Your task to perform on an android device: clear history in the chrome app Image 0: 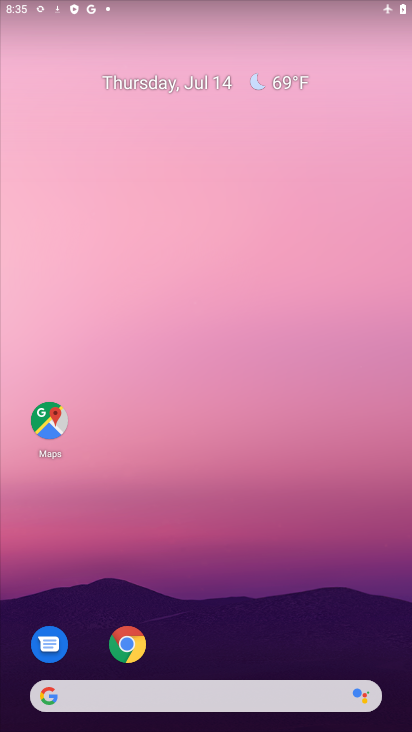
Step 0: click (133, 640)
Your task to perform on an android device: clear history in the chrome app Image 1: 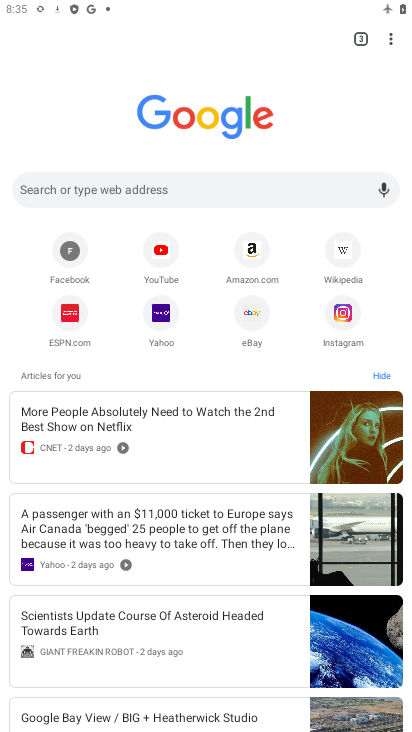
Step 1: click (401, 44)
Your task to perform on an android device: clear history in the chrome app Image 2: 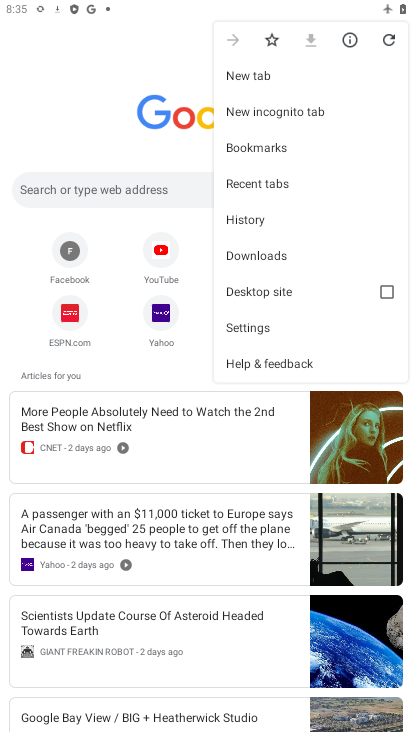
Step 2: click (261, 220)
Your task to perform on an android device: clear history in the chrome app Image 3: 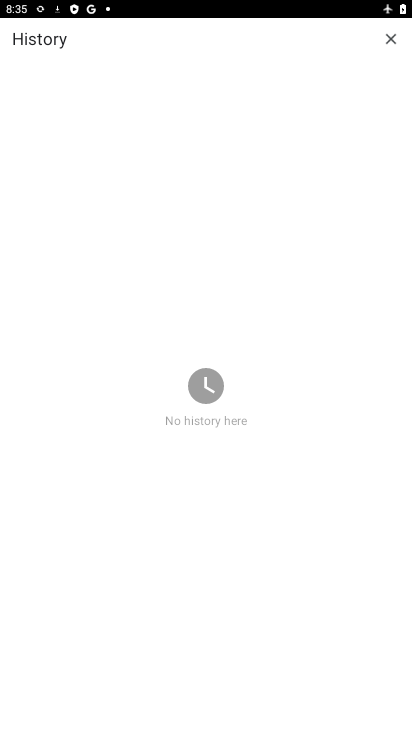
Step 3: task complete